Your task to perform on an android device: turn off notifications settings in the gmail app Image 0: 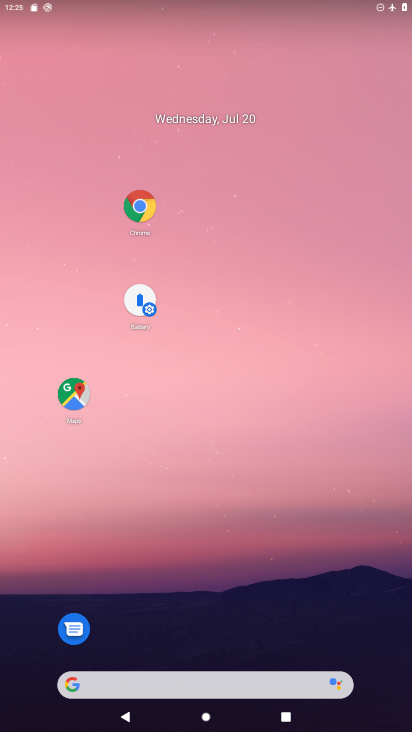
Step 0: drag from (192, 583) to (188, 367)
Your task to perform on an android device: turn off notifications settings in the gmail app Image 1: 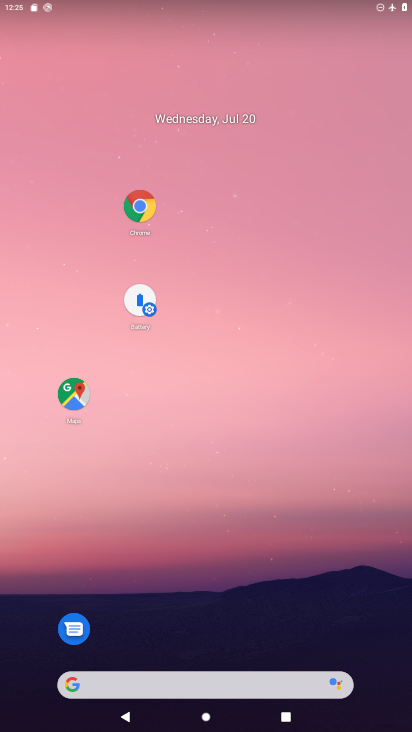
Step 1: drag from (208, 643) to (238, 289)
Your task to perform on an android device: turn off notifications settings in the gmail app Image 2: 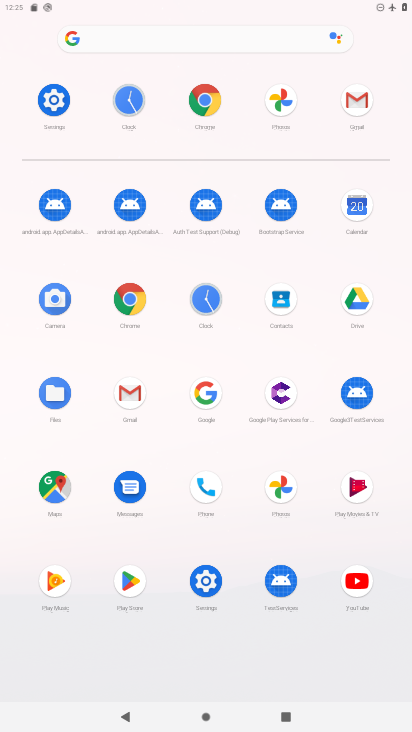
Step 2: click (130, 380)
Your task to perform on an android device: turn off notifications settings in the gmail app Image 3: 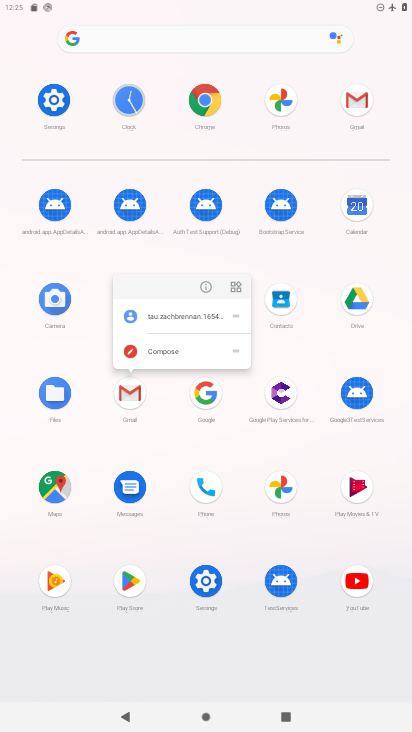
Step 3: click (199, 289)
Your task to perform on an android device: turn off notifications settings in the gmail app Image 4: 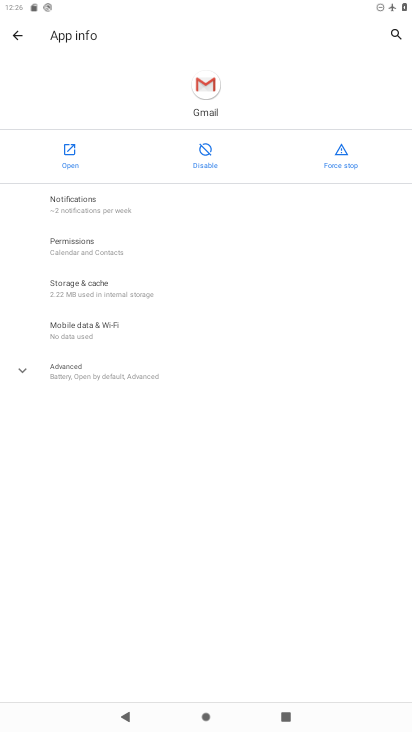
Step 4: click (64, 155)
Your task to perform on an android device: turn off notifications settings in the gmail app Image 5: 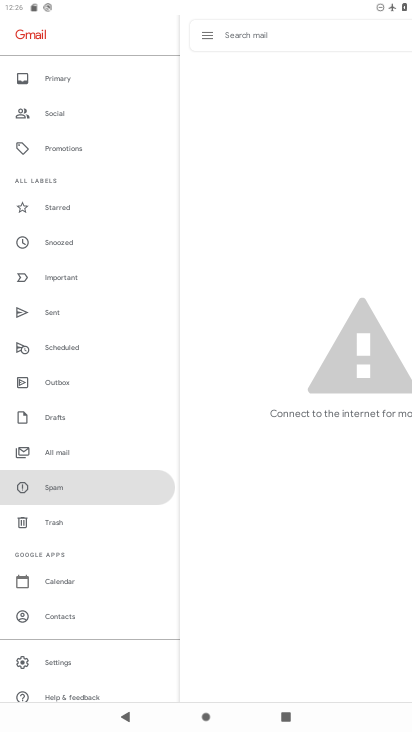
Step 5: click (80, 647)
Your task to perform on an android device: turn off notifications settings in the gmail app Image 6: 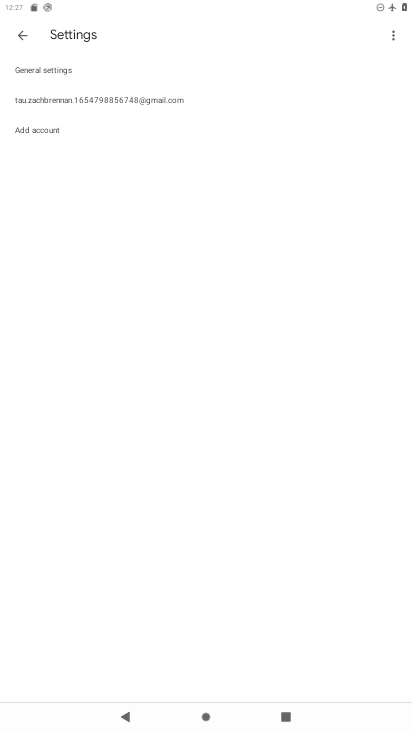
Step 6: drag from (95, 313) to (124, 121)
Your task to perform on an android device: turn off notifications settings in the gmail app Image 7: 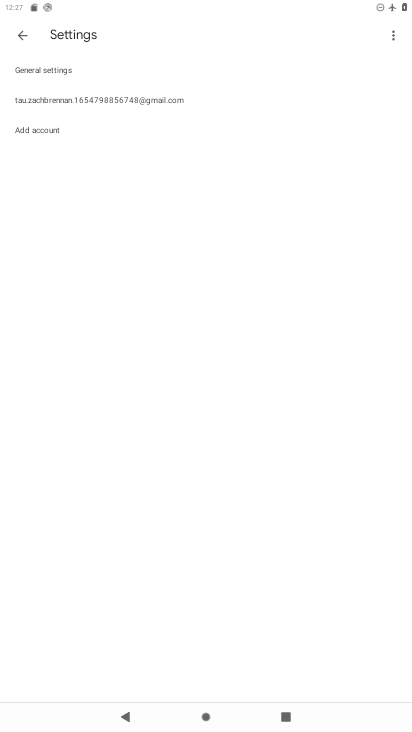
Step 7: click (115, 106)
Your task to perform on an android device: turn off notifications settings in the gmail app Image 8: 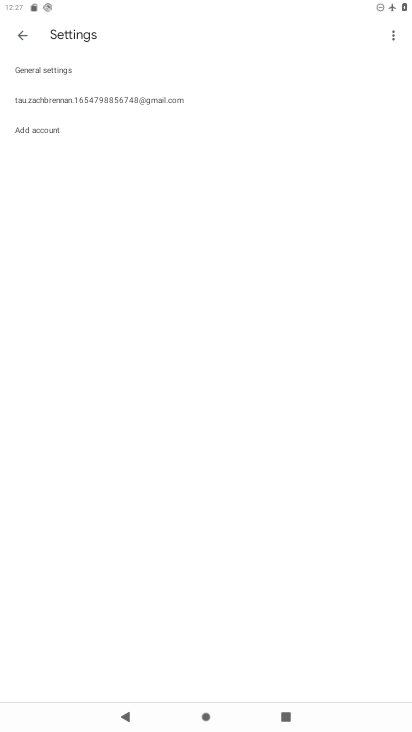
Step 8: click (115, 106)
Your task to perform on an android device: turn off notifications settings in the gmail app Image 9: 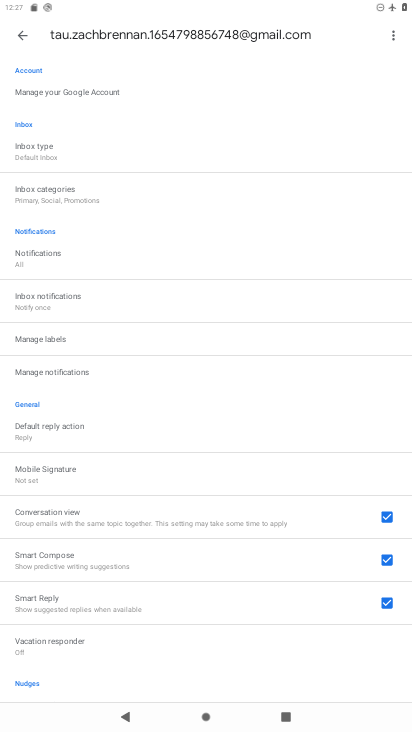
Step 9: click (62, 390)
Your task to perform on an android device: turn off notifications settings in the gmail app Image 10: 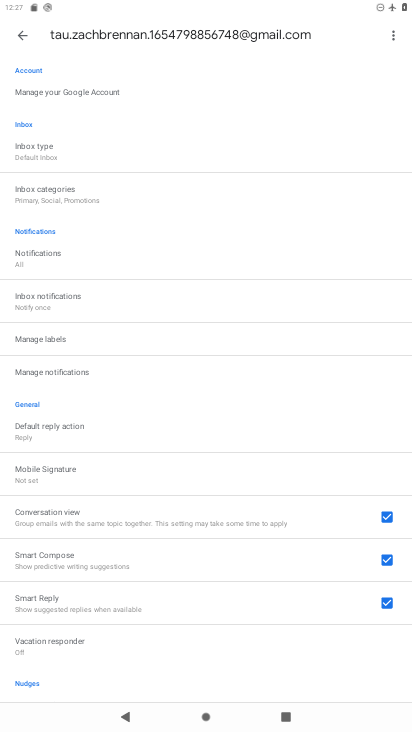
Step 10: click (62, 390)
Your task to perform on an android device: turn off notifications settings in the gmail app Image 11: 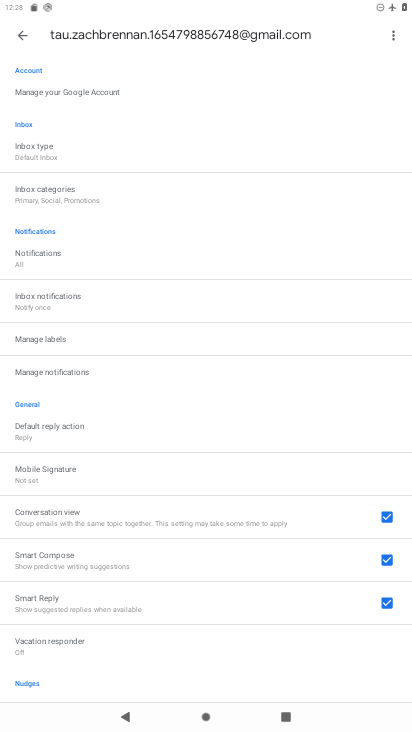
Step 11: drag from (127, 475) to (154, 282)
Your task to perform on an android device: turn off notifications settings in the gmail app Image 12: 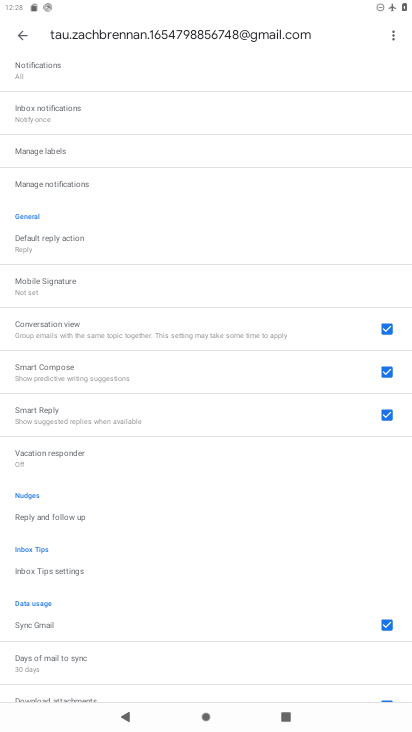
Step 12: click (62, 193)
Your task to perform on an android device: turn off notifications settings in the gmail app Image 13: 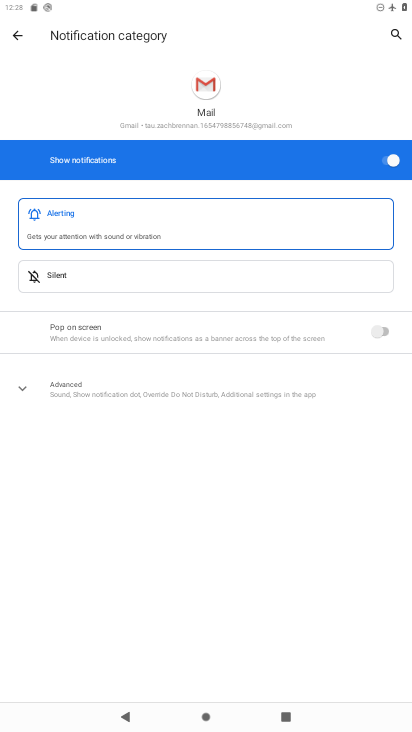
Step 13: click (384, 157)
Your task to perform on an android device: turn off notifications settings in the gmail app Image 14: 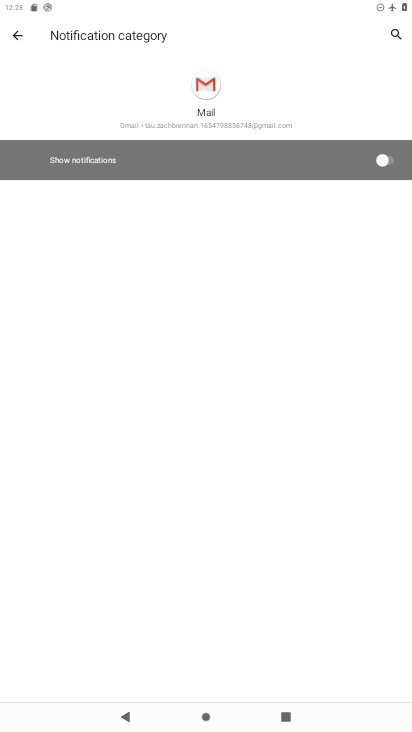
Step 14: task complete